Your task to perform on an android device: install app "Upside-Cash back on gas & food" Image 0: 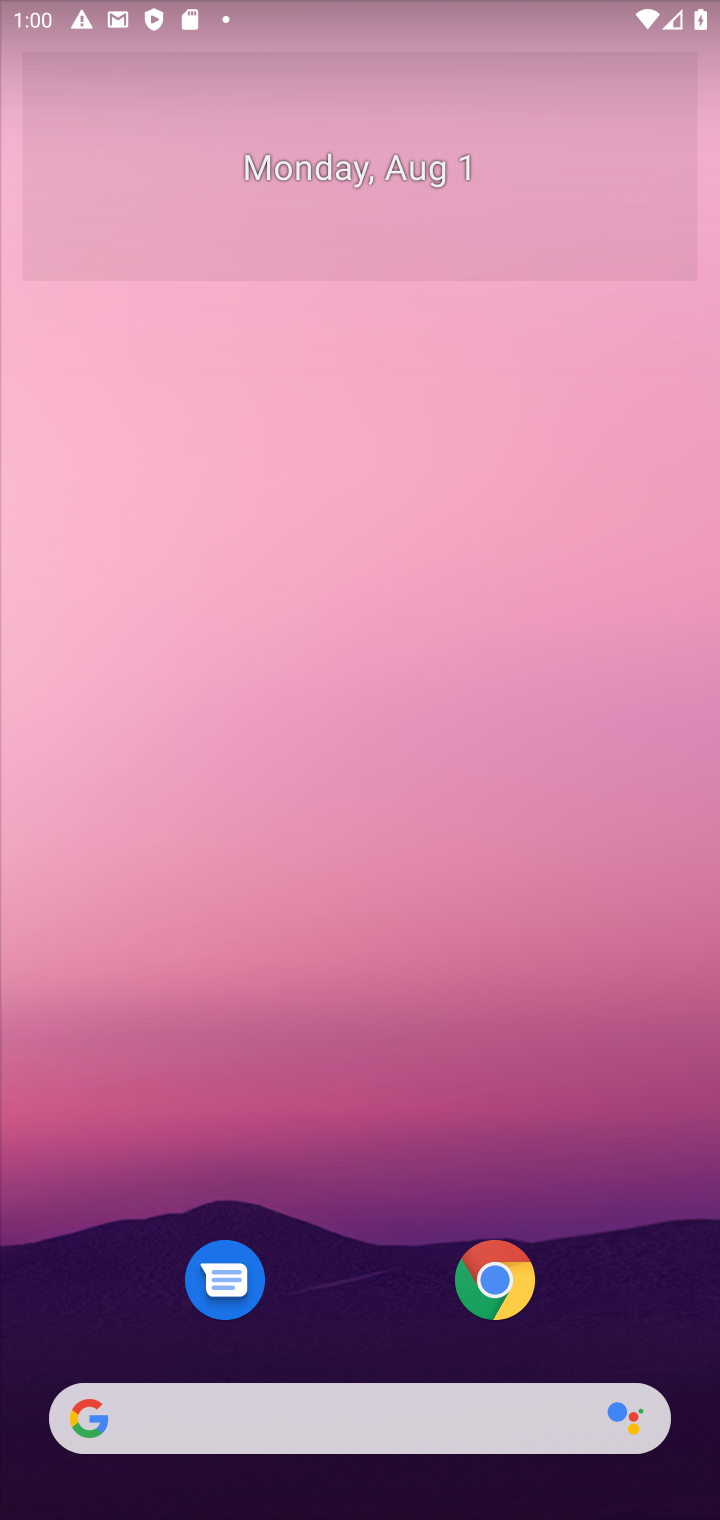
Step 0: press home button
Your task to perform on an android device: install app "Upside-Cash back on gas & food" Image 1: 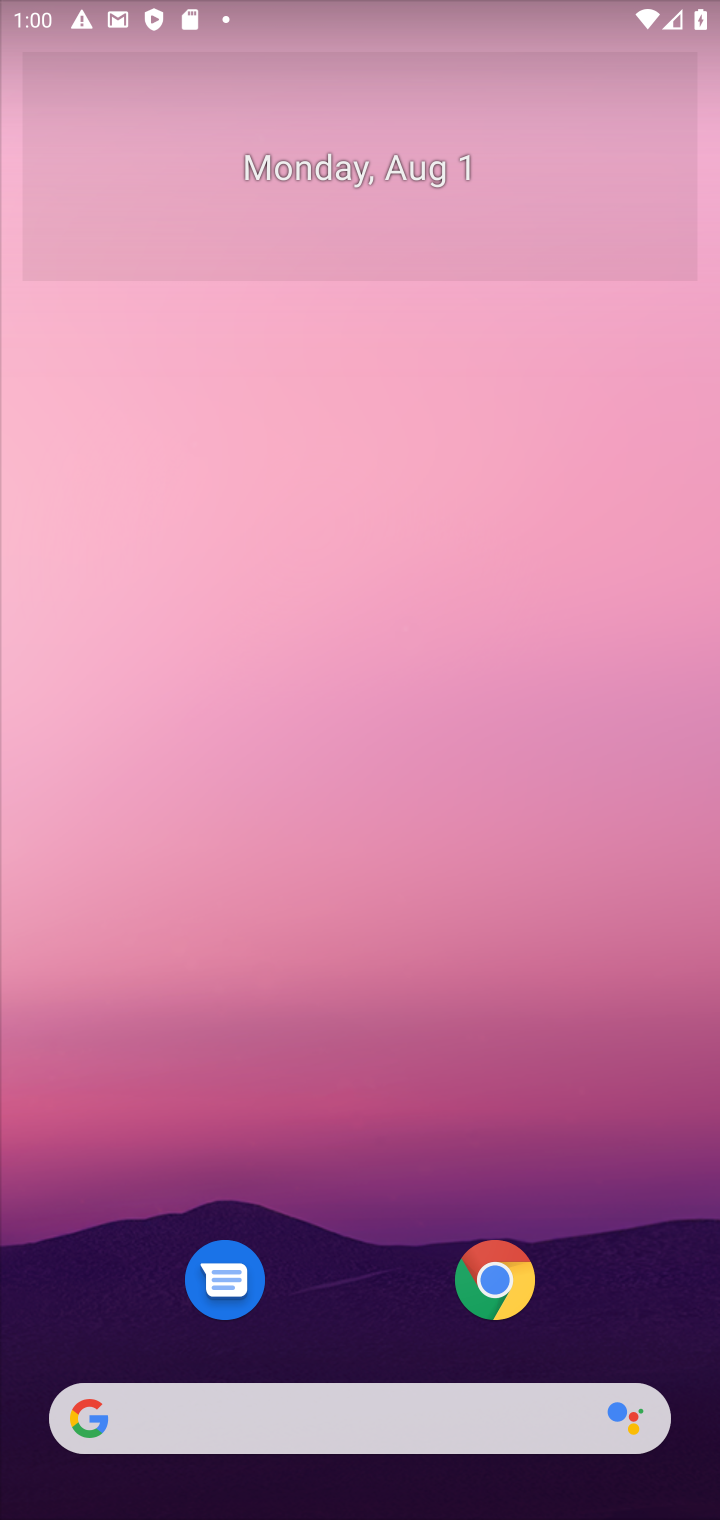
Step 1: drag from (365, 1192) to (472, 119)
Your task to perform on an android device: install app "Upside-Cash back on gas & food" Image 2: 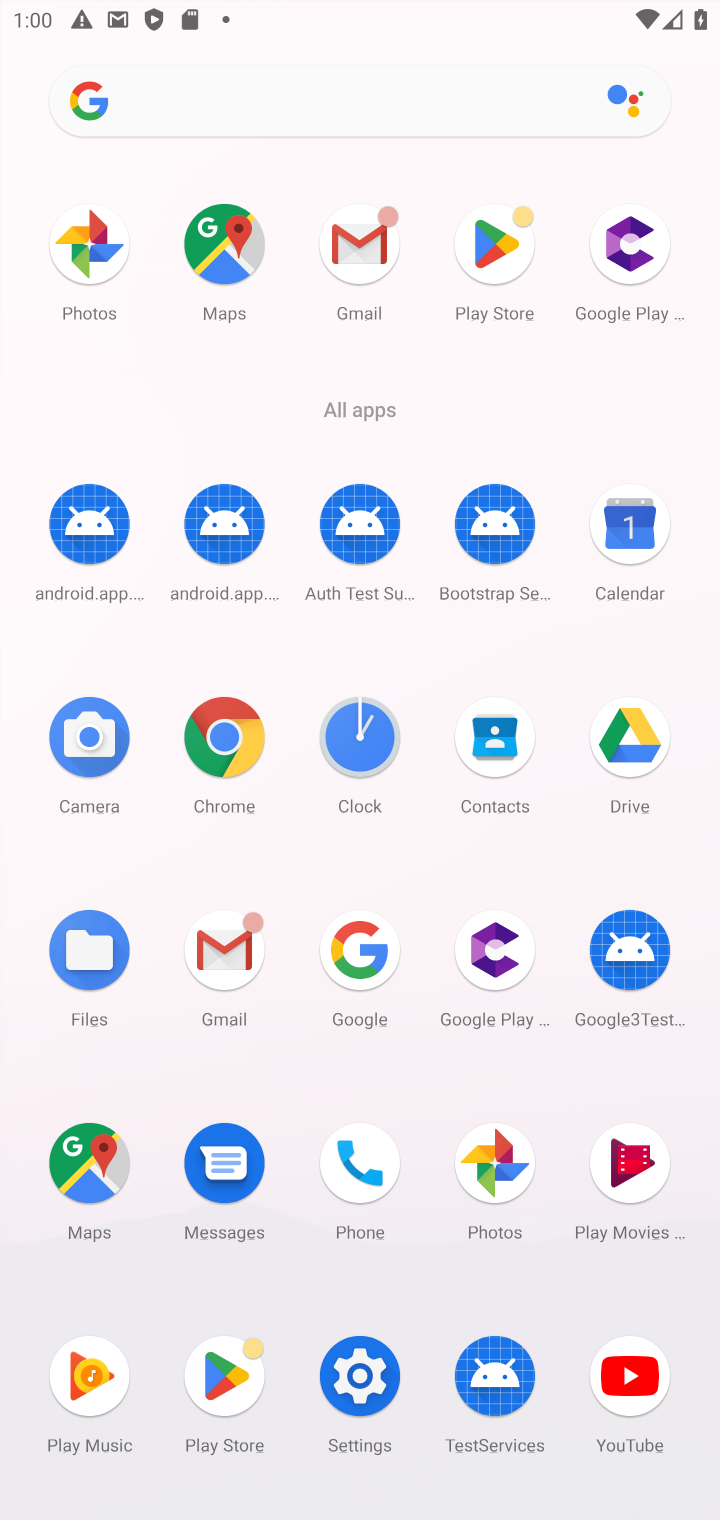
Step 2: click (521, 250)
Your task to perform on an android device: install app "Upside-Cash back on gas & food" Image 3: 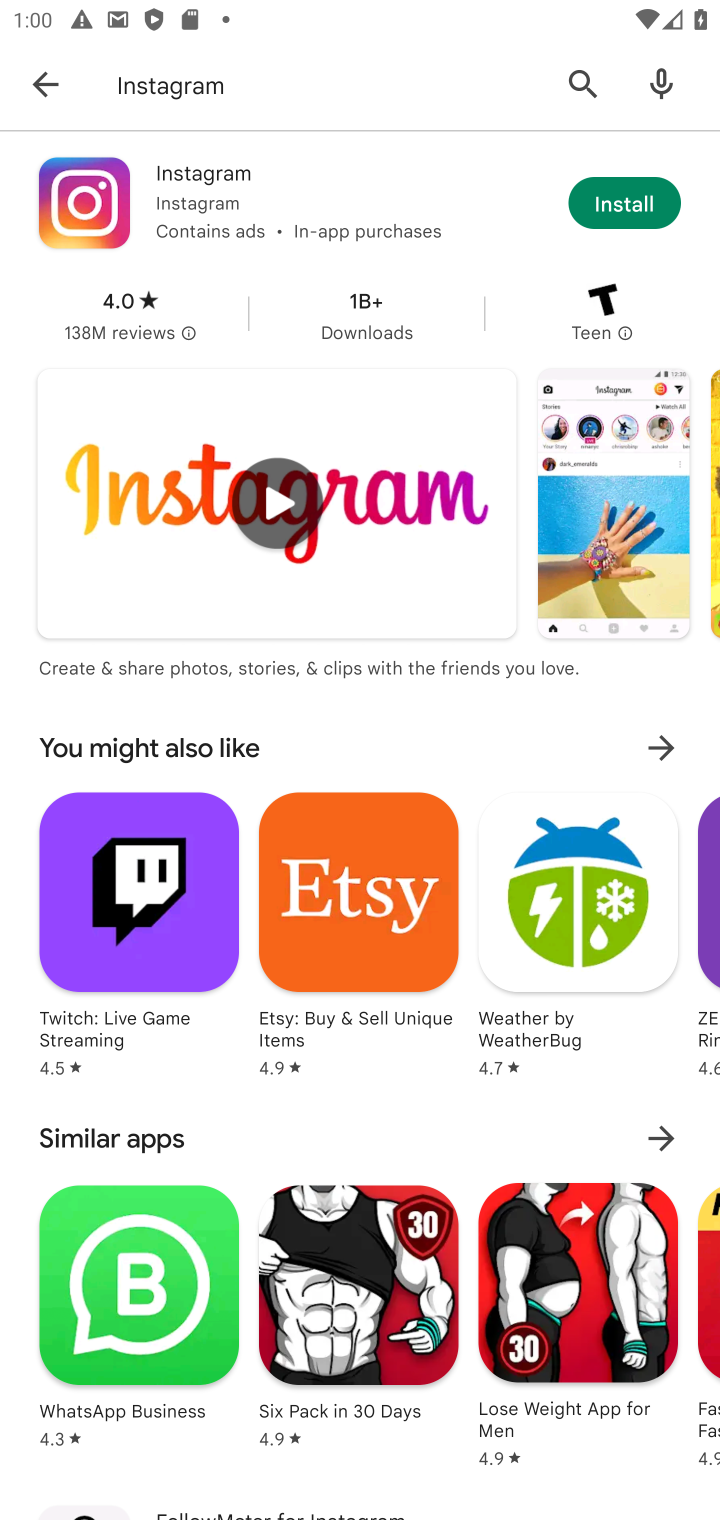
Step 3: click (447, 101)
Your task to perform on an android device: install app "Upside-Cash back on gas & food" Image 4: 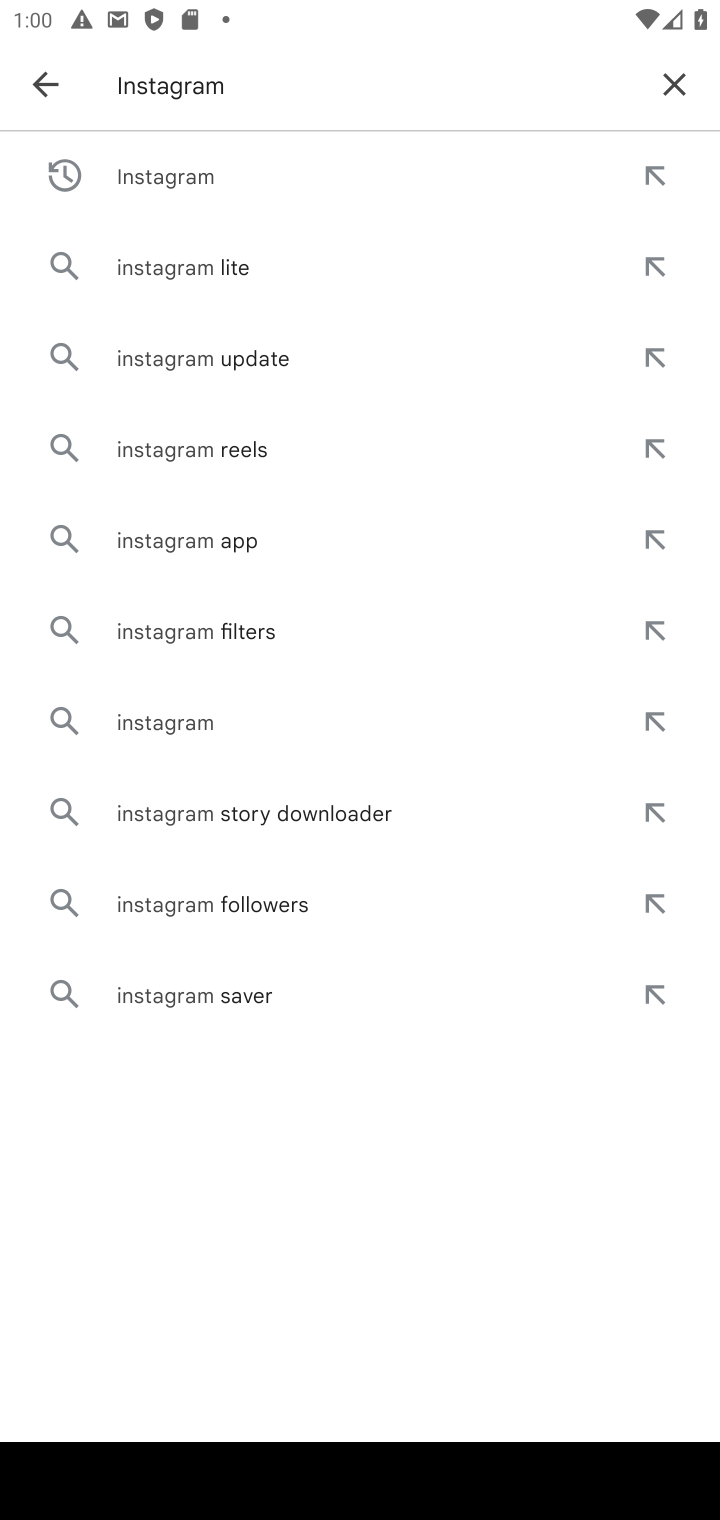
Step 4: click (679, 70)
Your task to perform on an android device: install app "Upside-Cash back on gas & food" Image 5: 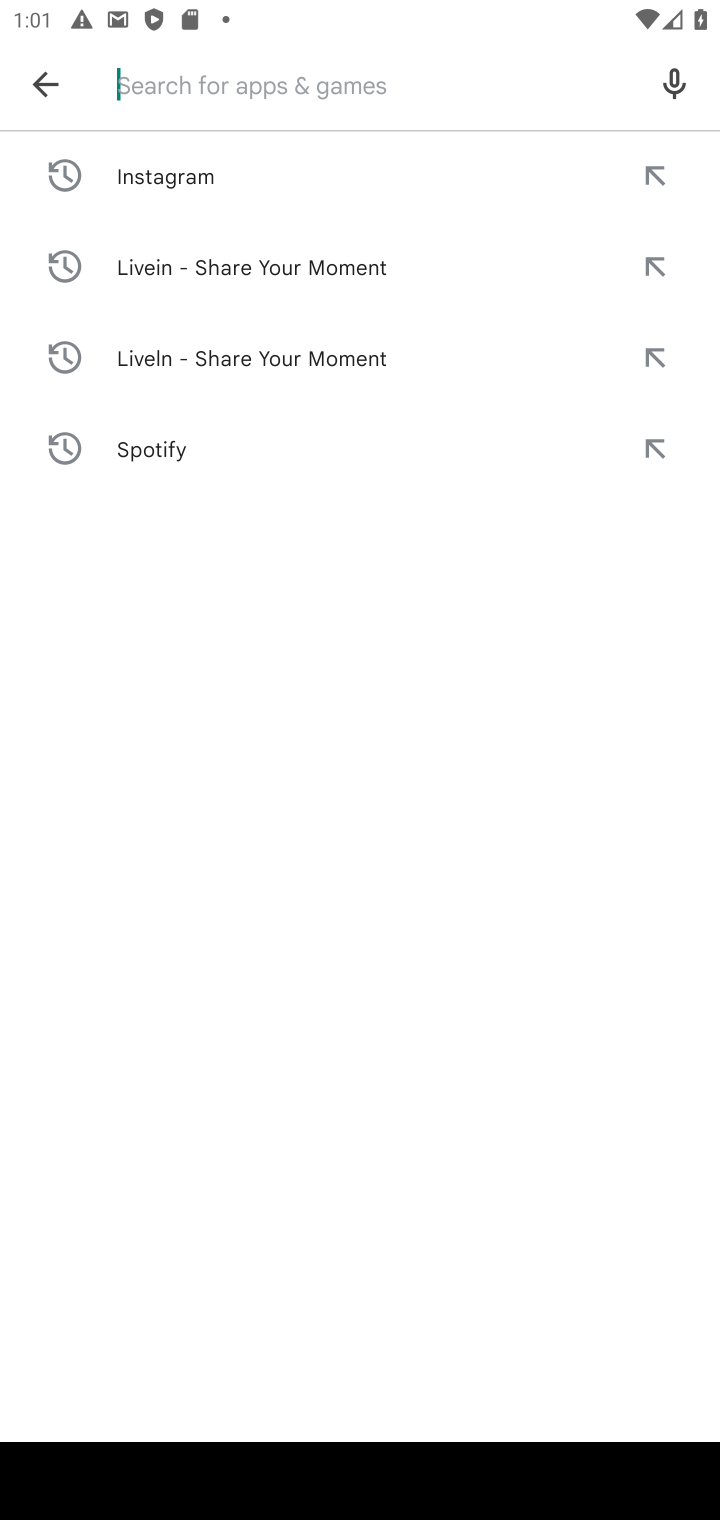
Step 5: type "Upside - Cash Back on gas & food"
Your task to perform on an android device: install app "Upside-Cash back on gas & food" Image 6: 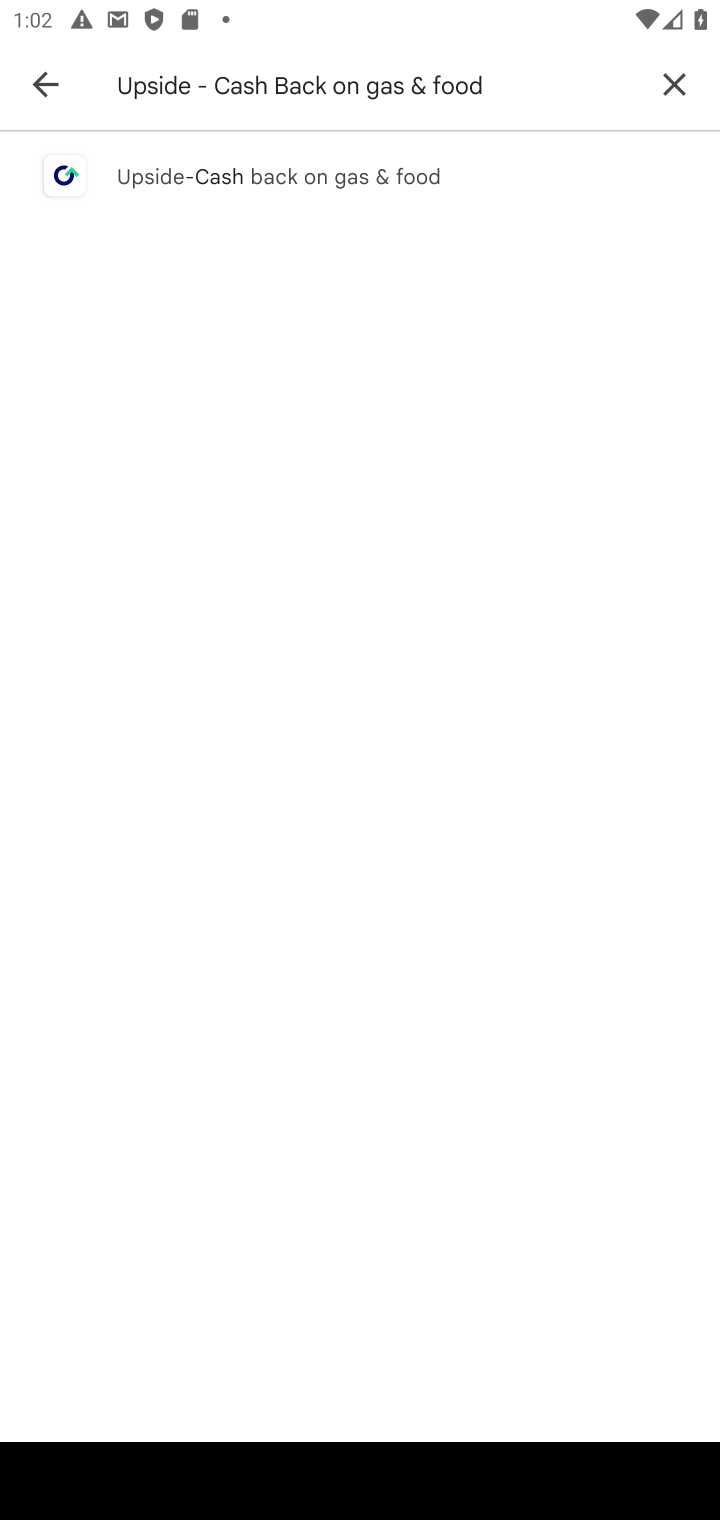
Step 6: press enter
Your task to perform on an android device: install app "Upside-Cash back on gas & food" Image 7: 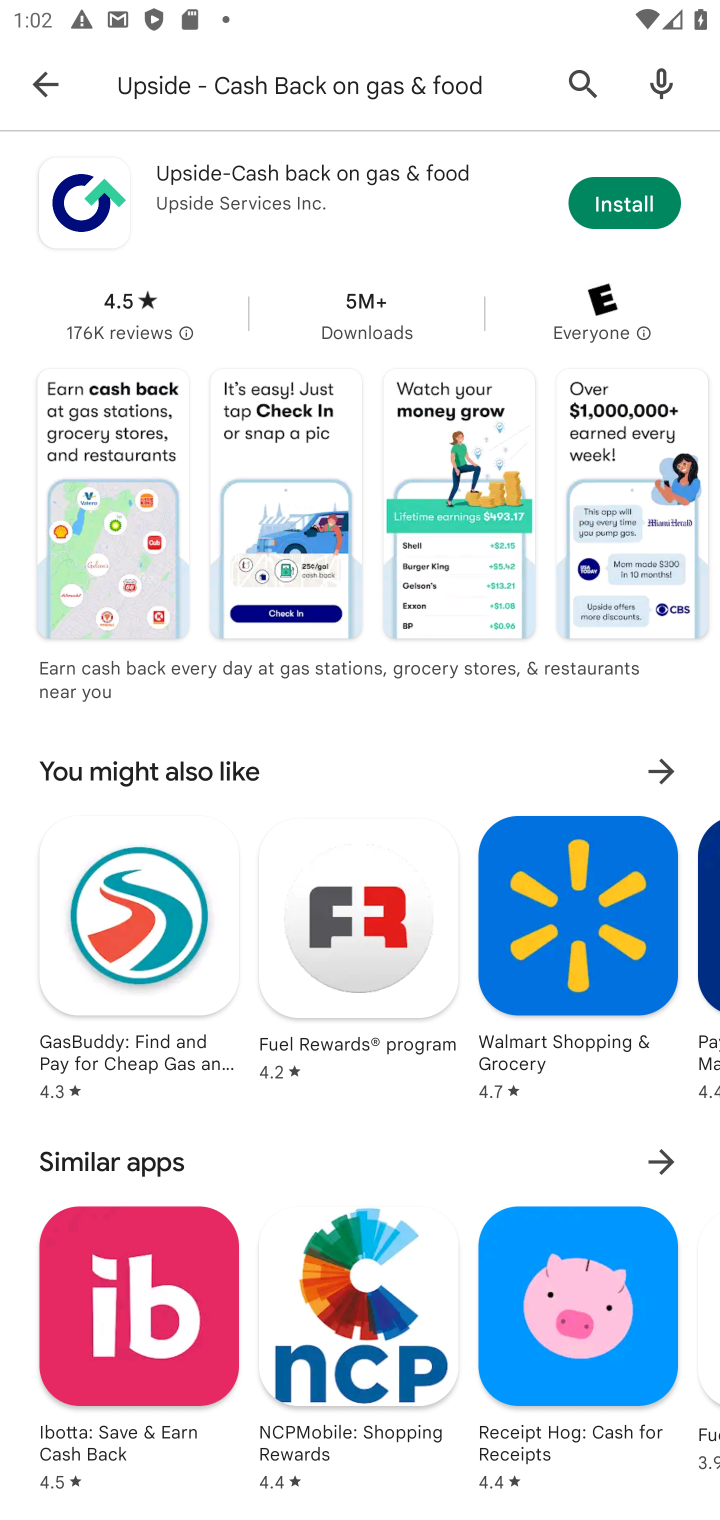
Step 7: click (629, 195)
Your task to perform on an android device: install app "Upside-Cash back on gas & food" Image 8: 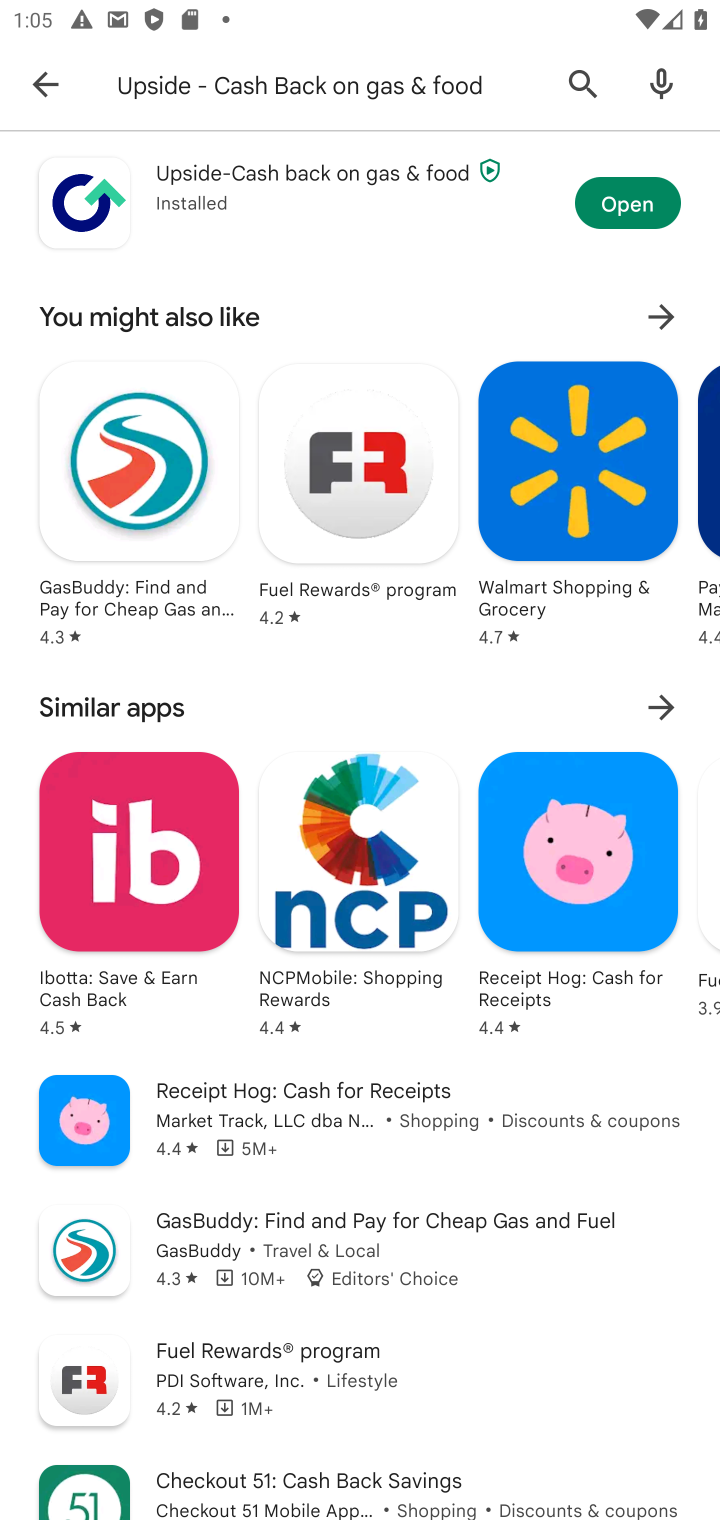
Step 8: task complete